Your task to perform on an android device: Open calendar and show me the first week of next month Image 0: 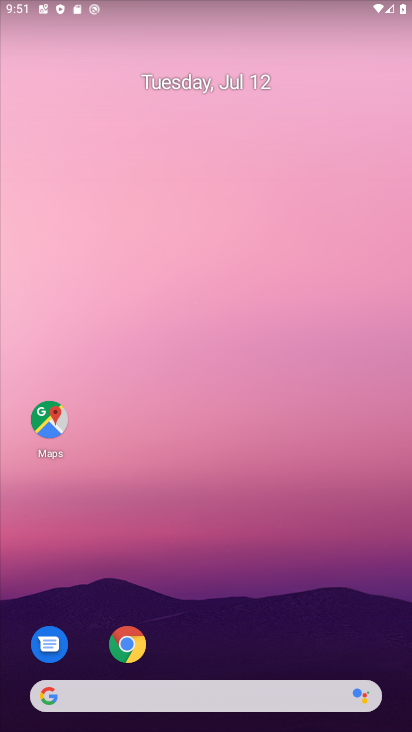
Step 0: drag from (246, 661) to (409, 34)
Your task to perform on an android device: Open calendar and show me the first week of next month Image 1: 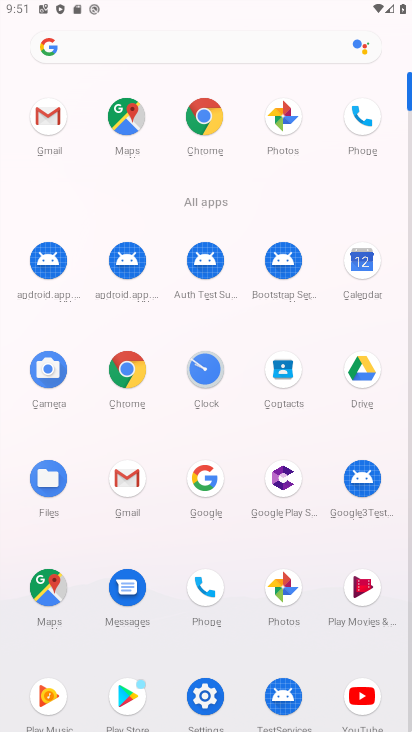
Step 1: click (350, 264)
Your task to perform on an android device: Open calendar and show me the first week of next month Image 2: 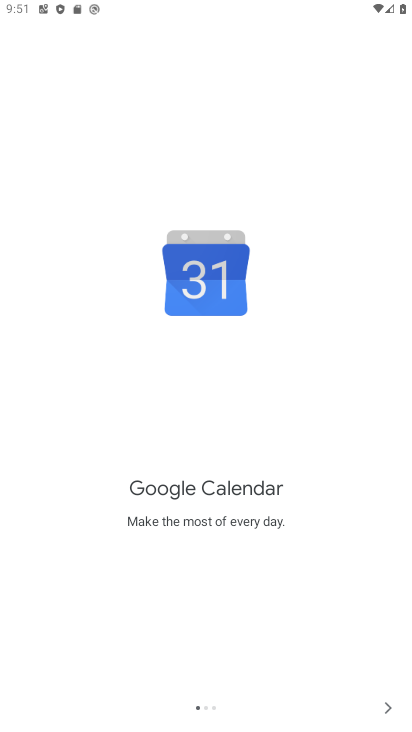
Step 2: click (381, 709)
Your task to perform on an android device: Open calendar and show me the first week of next month Image 3: 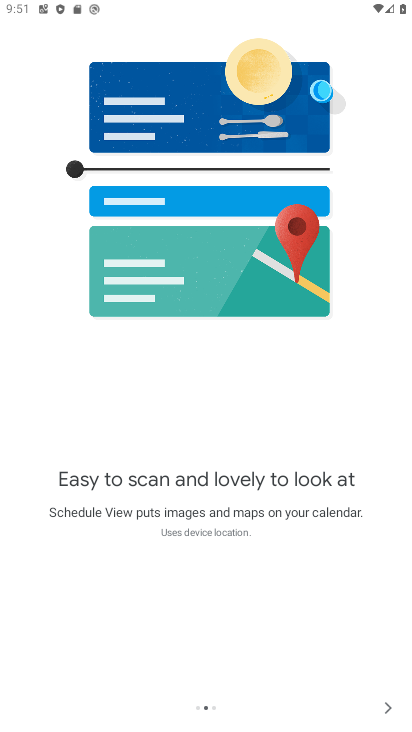
Step 3: click (383, 709)
Your task to perform on an android device: Open calendar and show me the first week of next month Image 4: 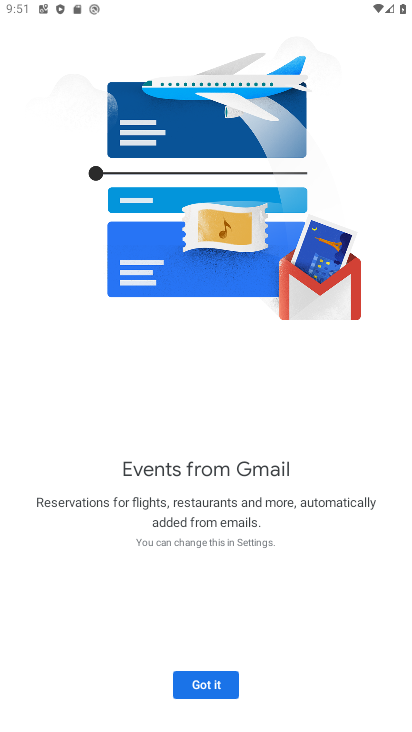
Step 4: click (216, 688)
Your task to perform on an android device: Open calendar and show me the first week of next month Image 5: 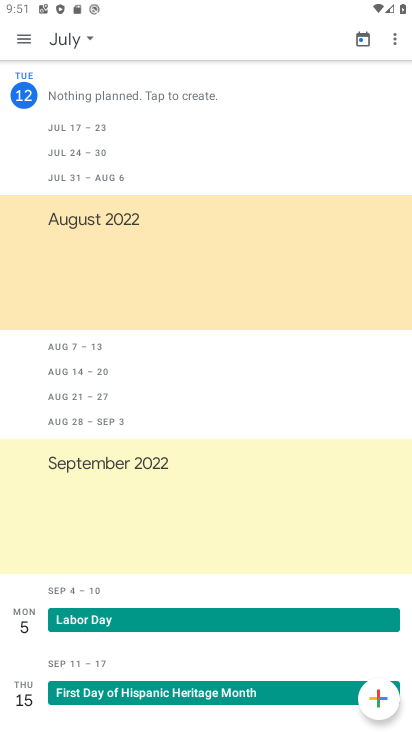
Step 5: click (68, 38)
Your task to perform on an android device: Open calendar and show me the first week of next month Image 6: 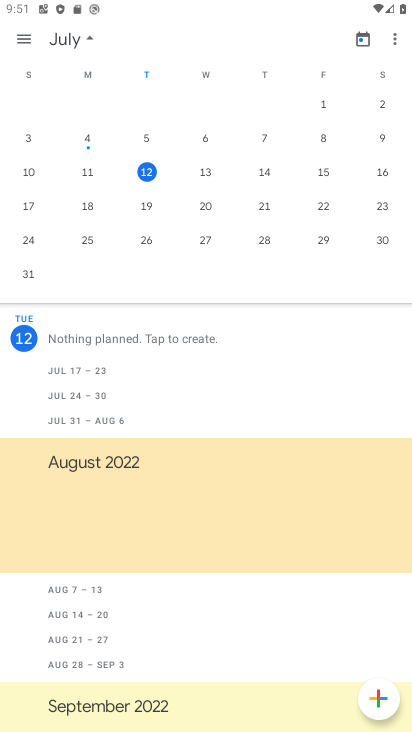
Step 6: task complete